Your task to perform on an android device: change the clock display to analog Image 0: 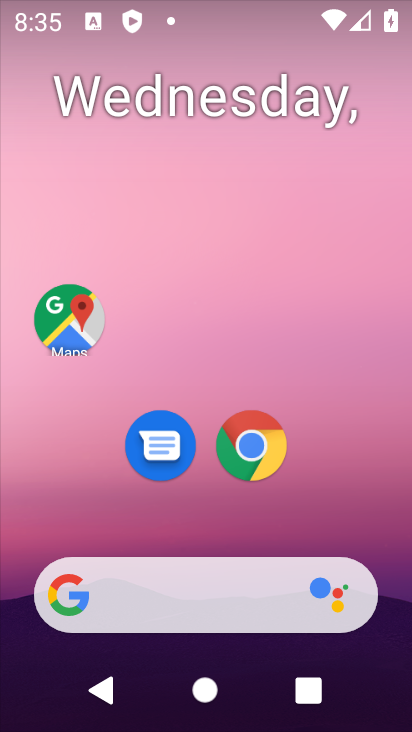
Step 0: drag from (369, 372) to (328, 16)
Your task to perform on an android device: change the clock display to analog Image 1: 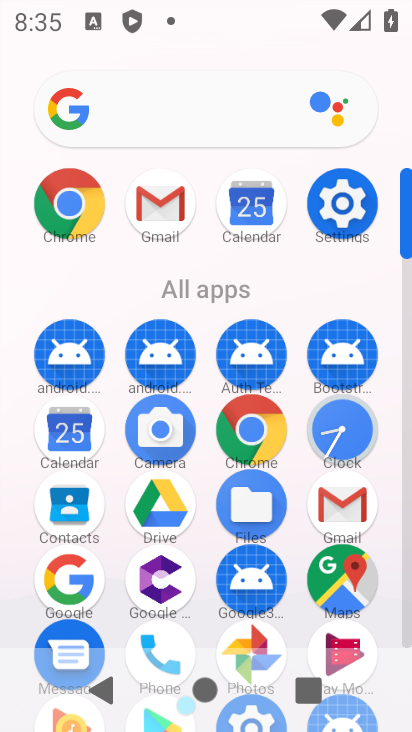
Step 1: click (358, 412)
Your task to perform on an android device: change the clock display to analog Image 2: 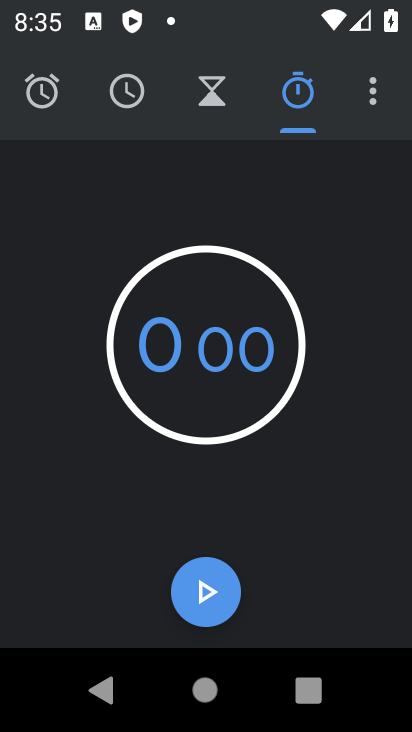
Step 2: click (358, 103)
Your task to perform on an android device: change the clock display to analog Image 3: 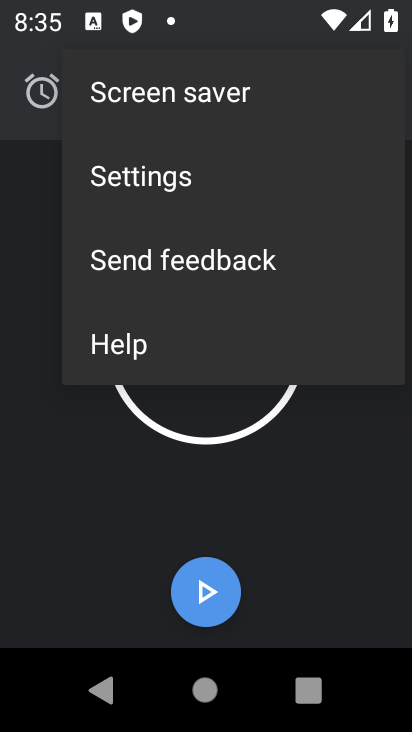
Step 3: click (146, 170)
Your task to perform on an android device: change the clock display to analog Image 4: 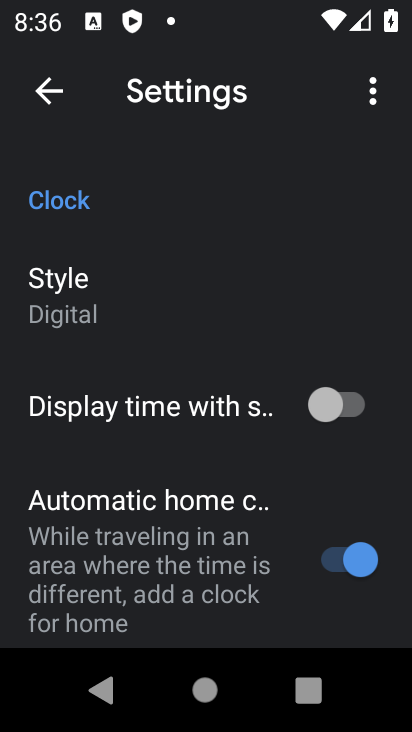
Step 4: click (86, 288)
Your task to perform on an android device: change the clock display to analog Image 5: 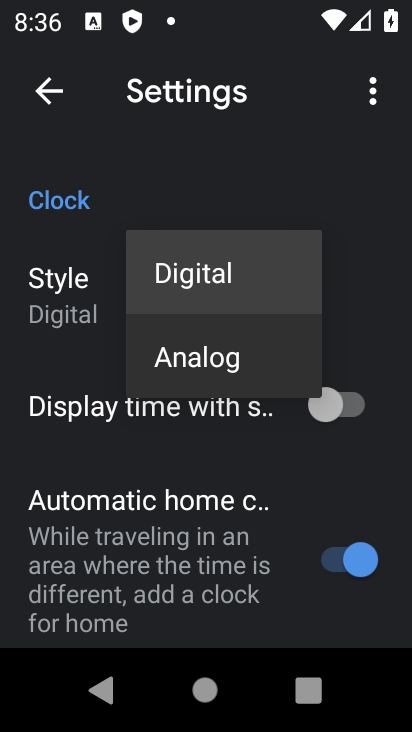
Step 5: click (168, 356)
Your task to perform on an android device: change the clock display to analog Image 6: 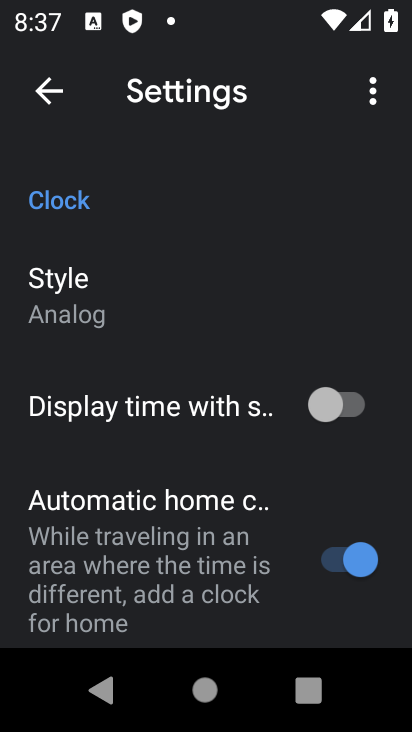
Step 6: task complete